Your task to perform on an android device: open app "Paramount+ | Peak Streaming" (install if not already installed) Image 0: 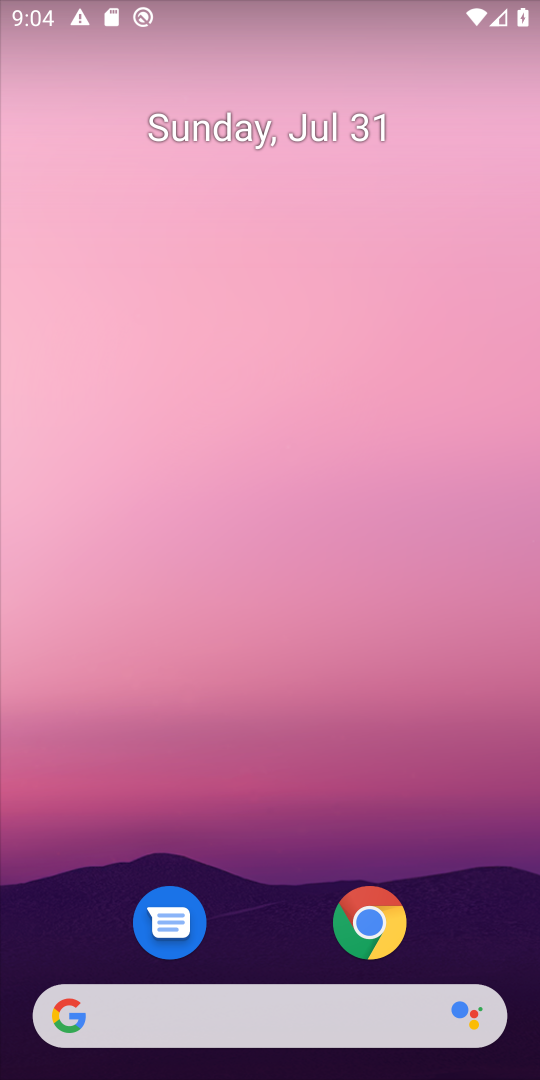
Step 0: drag from (299, 1055) to (254, 140)
Your task to perform on an android device: open app "Paramount+ | Peak Streaming" (install if not already installed) Image 1: 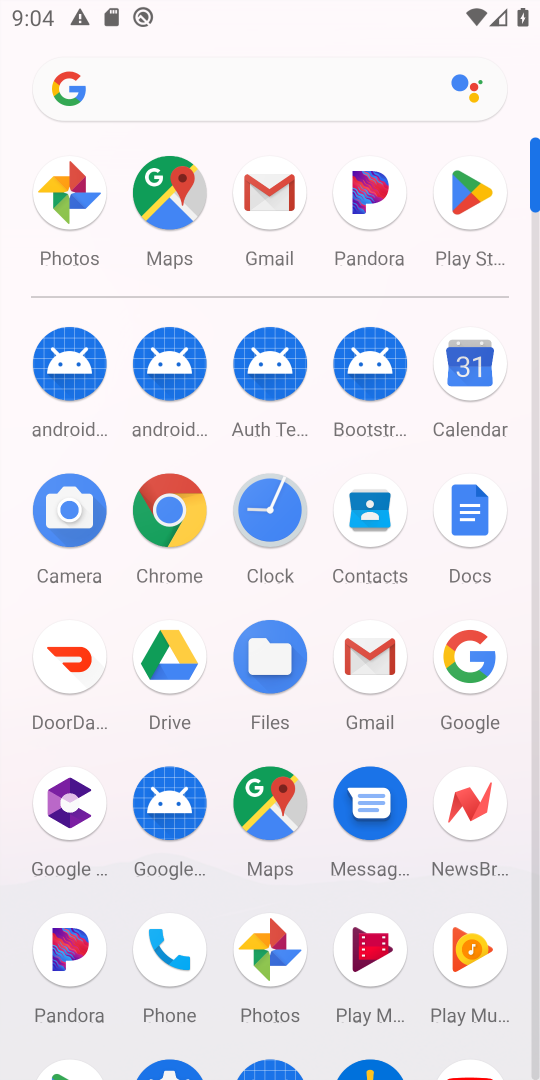
Step 1: click (472, 201)
Your task to perform on an android device: open app "Paramount+ | Peak Streaming" (install if not already installed) Image 2: 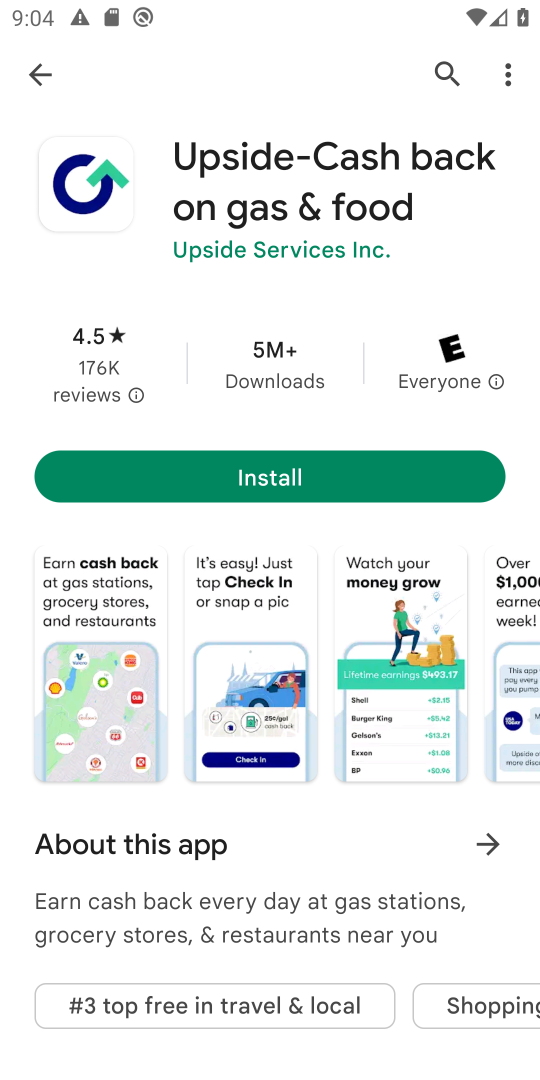
Step 2: click (450, 70)
Your task to perform on an android device: open app "Paramount+ | Peak Streaming" (install if not already installed) Image 3: 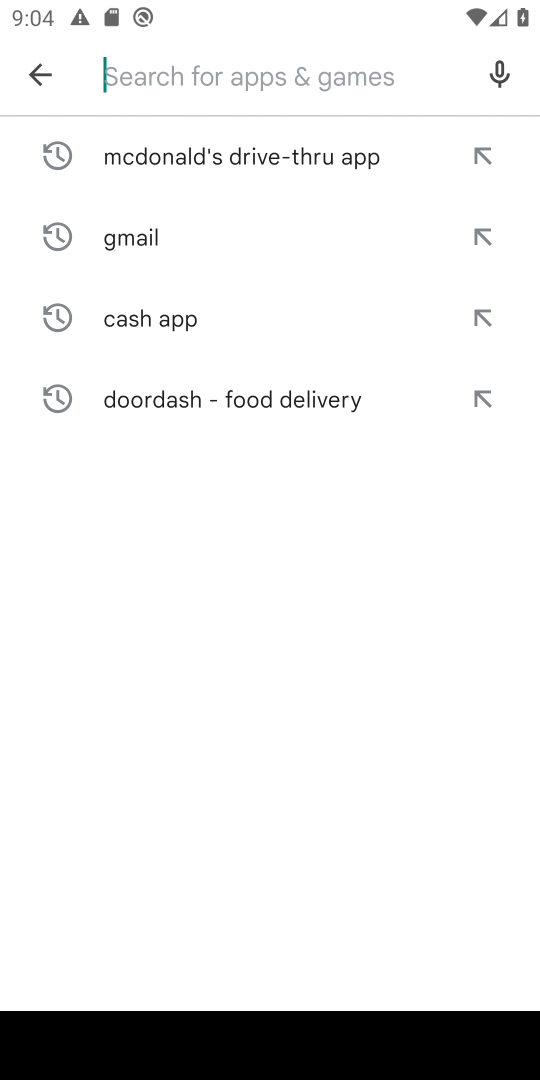
Step 3: type "Paramount+ | Peak Streaming"
Your task to perform on an android device: open app "Paramount+ | Peak Streaming" (install if not already installed) Image 4: 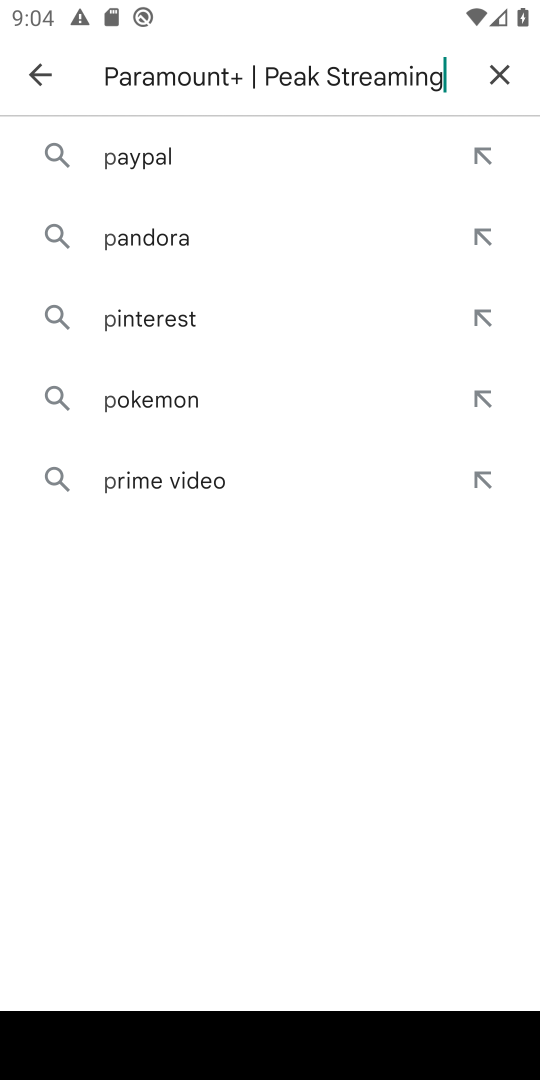
Step 4: type ""
Your task to perform on an android device: open app "Paramount+ | Peak Streaming" (install if not already installed) Image 5: 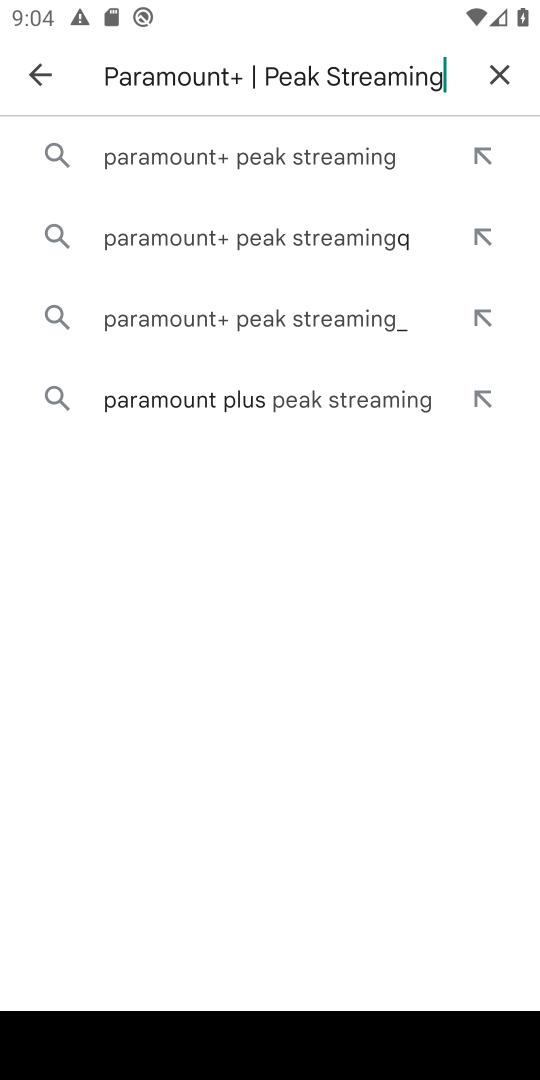
Step 5: click (353, 159)
Your task to perform on an android device: open app "Paramount+ | Peak Streaming" (install if not already installed) Image 6: 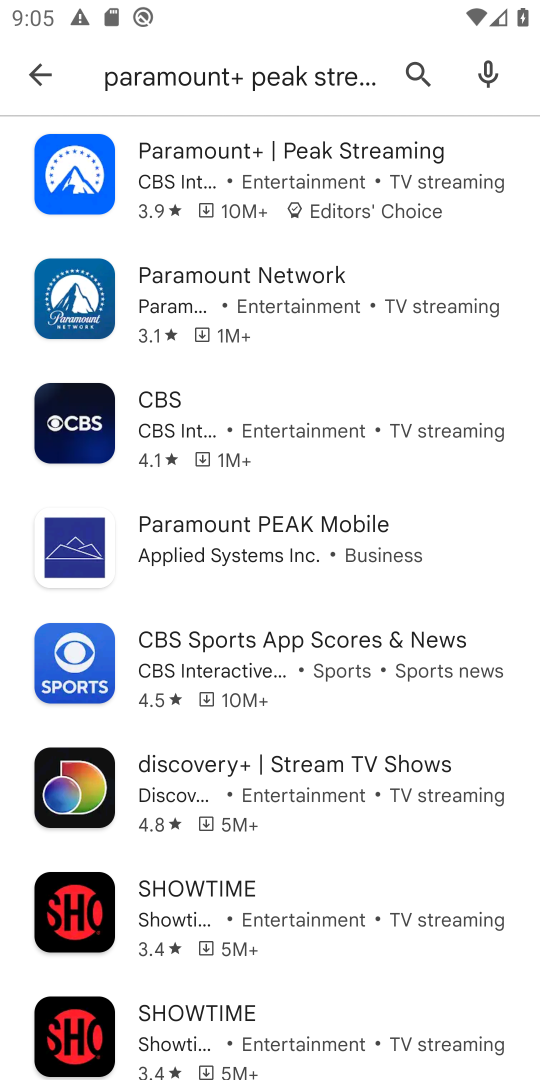
Step 6: click (216, 155)
Your task to perform on an android device: open app "Paramount+ | Peak Streaming" (install if not already installed) Image 7: 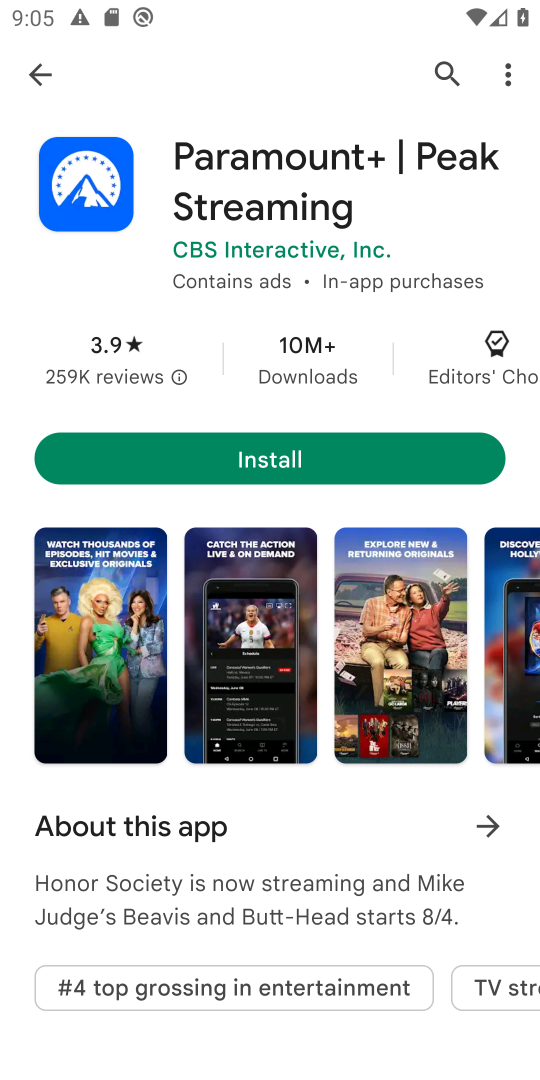
Step 7: click (268, 461)
Your task to perform on an android device: open app "Paramount+ | Peak Streaming" (install if not already installed) Image 8: 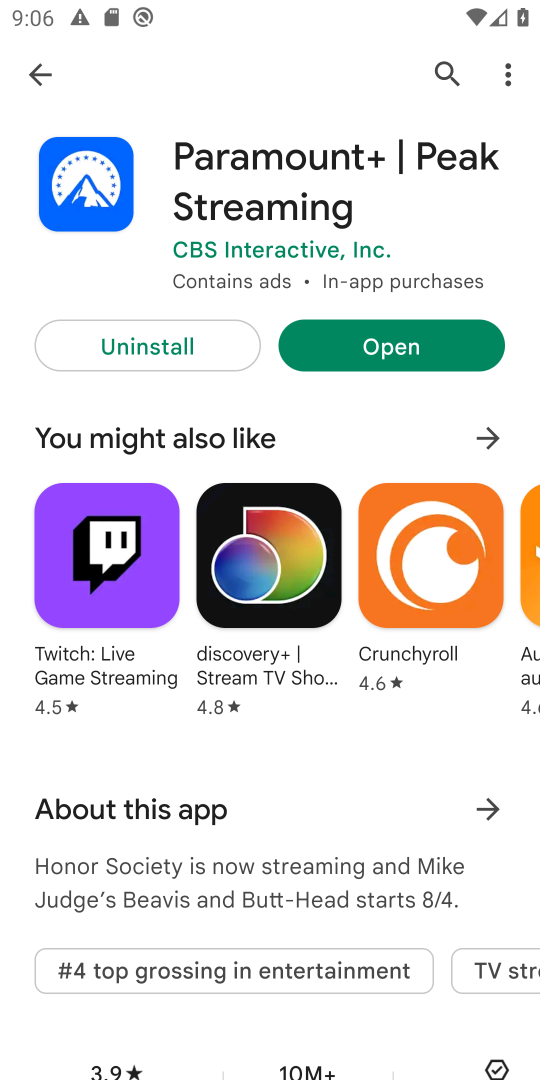
Step 8: task complete